Your task to perform on an android device: move an email to a new category in the gmail app Image 0: 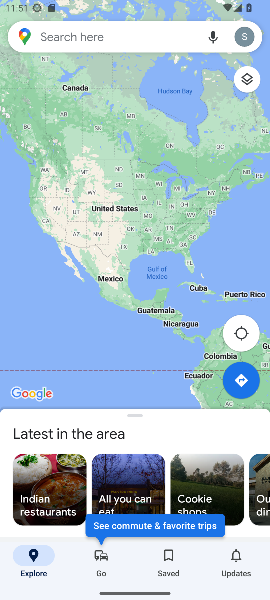
Step 0: press home button
Your task to perform on an android device: move an email to a new category in the gmail app Image 1: 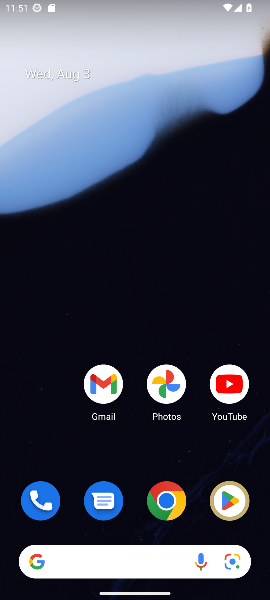
Step 1: click (111, 379)
Your task to perform on an android device: move an email to a new category in the gmail app Image 2: 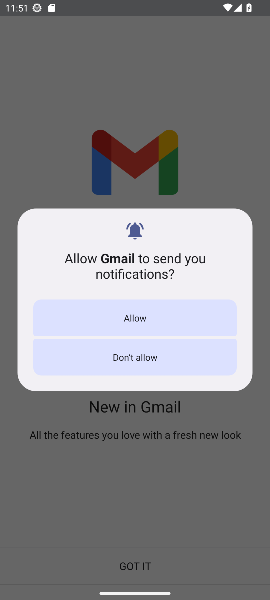
Step 2: click (131, 320)
Your task to perform on an android device: move an email to a new category in the gmail app Image 3: 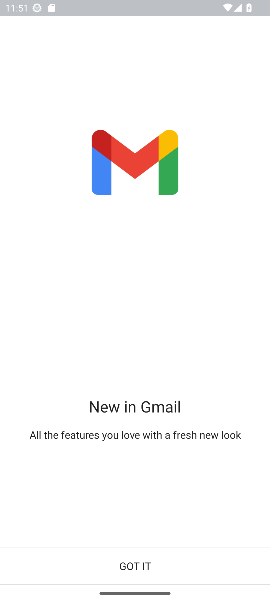
Step 3: click (130, 571)
Your task to perform on an android device: move an email to a new category in the gmail app Image 4: 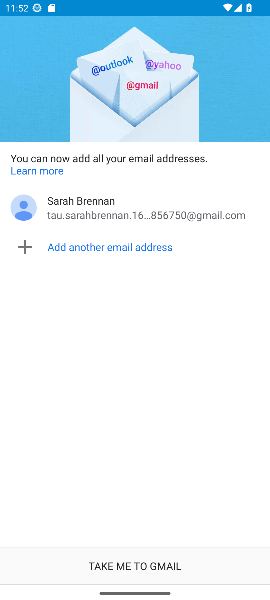
Step 4: click (112, 194)
Your task to perform on an android device: move an email to a new category in the gmail app Image 5: 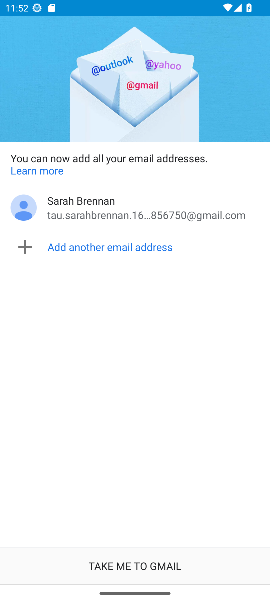
Step 5: click (142, 557)
Your task to perform on an android device: move an email to a new category in the gmail app Image 6: 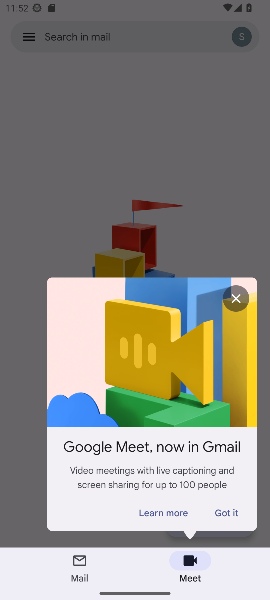
Step 6: click (235, 301)
Your task to perform on an android device: move an email to a new category in the gmail app Image 7: 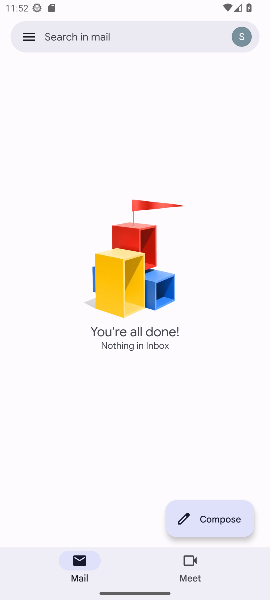
Step 7: click (26, 39)
Your task to perform on an android device: move an email to a new category in the gmail app Image 8: 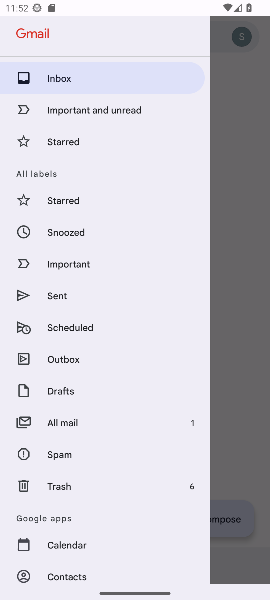
Step 8: click (96, 418)
Your task to perform on an android device: move an email to a new category in the gmail app Image 9: 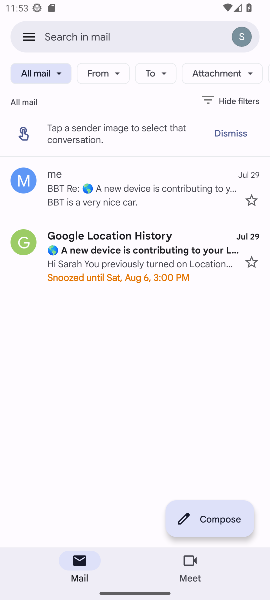
Step 9: click (144, 177)
Your task to perform on an android device: move an email to a new category in the gmail app Image 10: 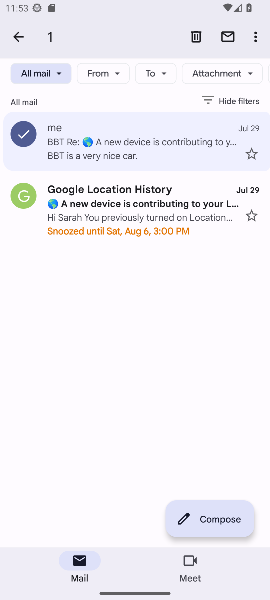
Step 10: click (262, 40)
Your task to perform on an android device: move an email to a new category in the gmail app Image 11: 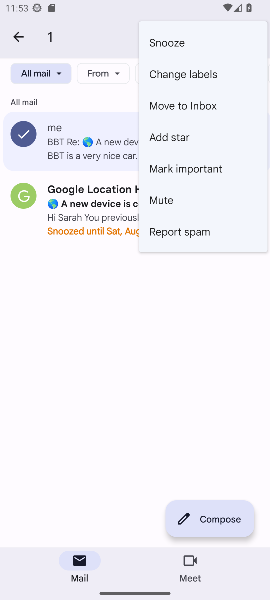
Step 11: click (186, 77)
Your task to perform on an android device: move an email to a new category in the gmail app Image 12: 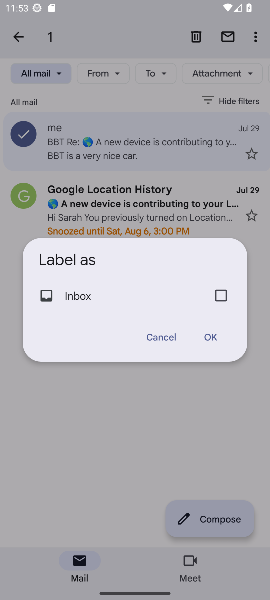
Step 12: click (219, 295)
Your task to perform on an android device: move an email to a new category in the gmail app Image 13: 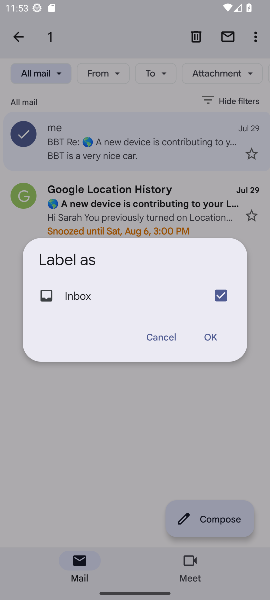
Step 13: click (211, 336)
Your task to perform on an android device: move an email to a new category in the gmail app Image 14: 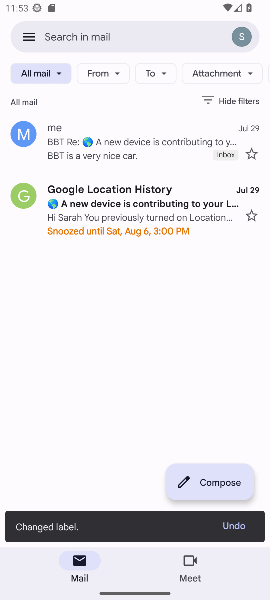
Step 14: task complete